Your task to perform on an android device: Play the last video I watched on Youtube Image 0: 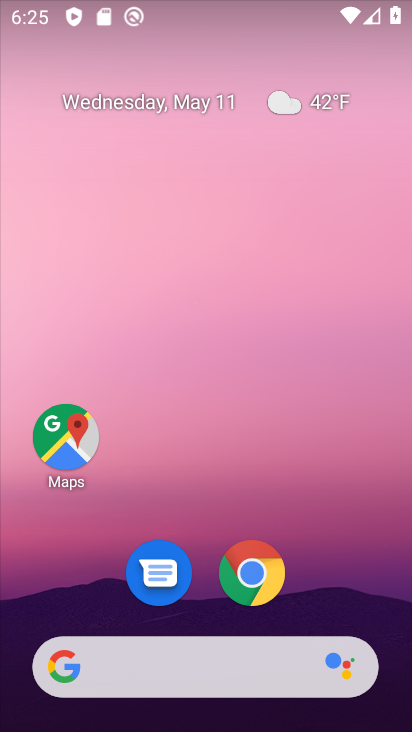
Step 0: drag from (300, 594) to (278, 179)
Your task to perform on an android device: Play the last video I watched on Youtube Image 1: 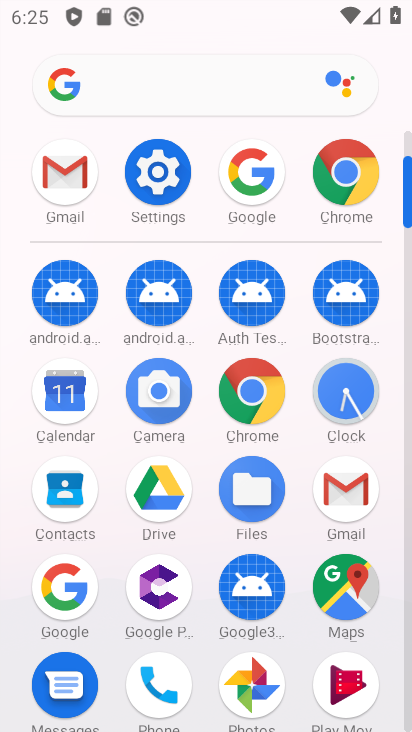
Step 1: drag from (284, 613) to (331, 312)
Your task to perform on an android device: Play the last video I watched on Youtube Image 2: 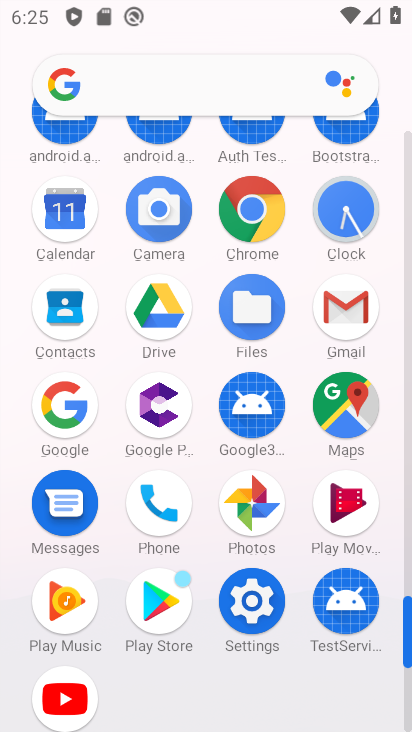
Step 2: click (63, 702)
Your task to perform on an android device: Play the last video I watched on Youtube Image 3: 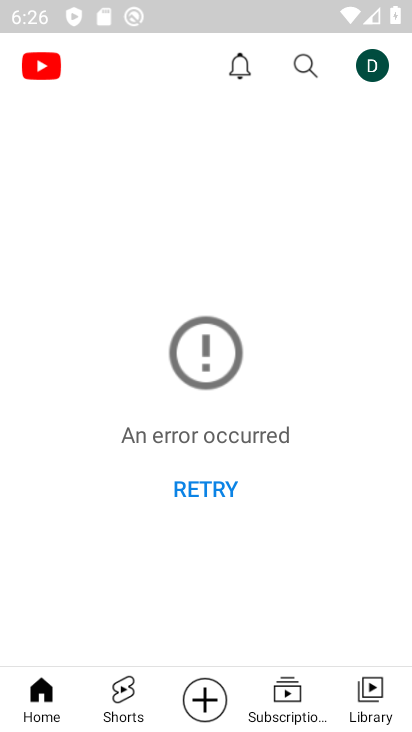
Step 3: click (215, 488)
Your task to perform on an android device: Play the last video I watched on Youtube Image 4: 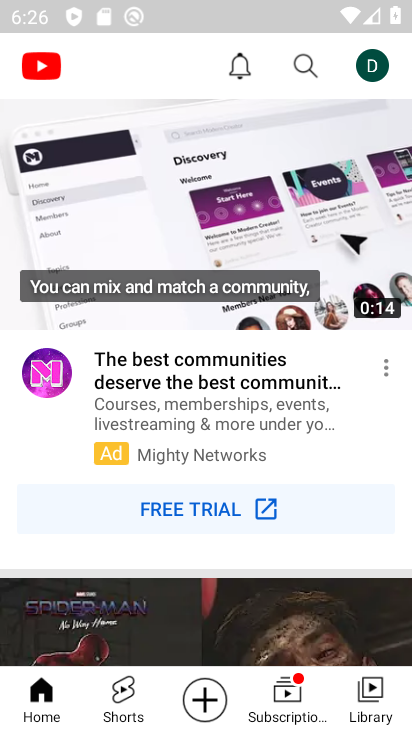
Step 4: click (363, 698)
Your task to perform on an android device: Play the last video I watched on Youtube Image 5: 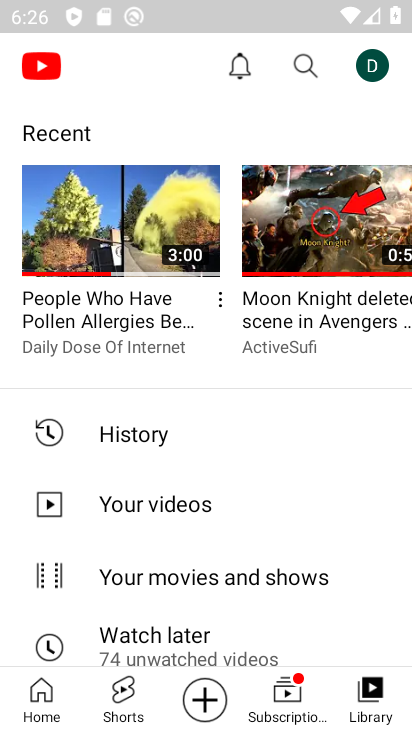
Step 5: task complete